Your task to perform on an android device: open a bookmark in the chrome app Image 0: 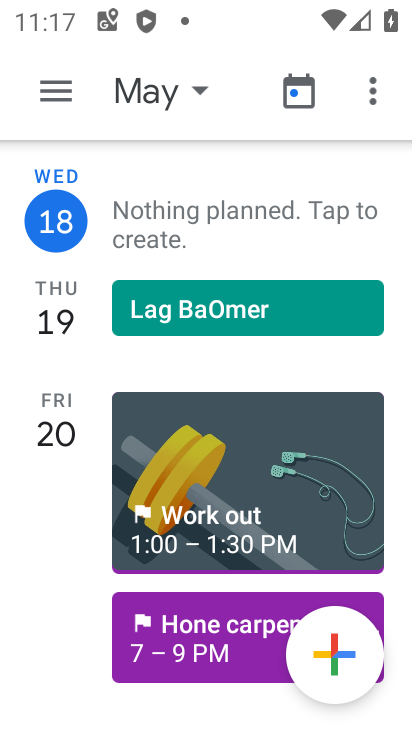
Step 0: press home button
Your task to perform on an android device: open a bookmark in the chrome app Image 1: 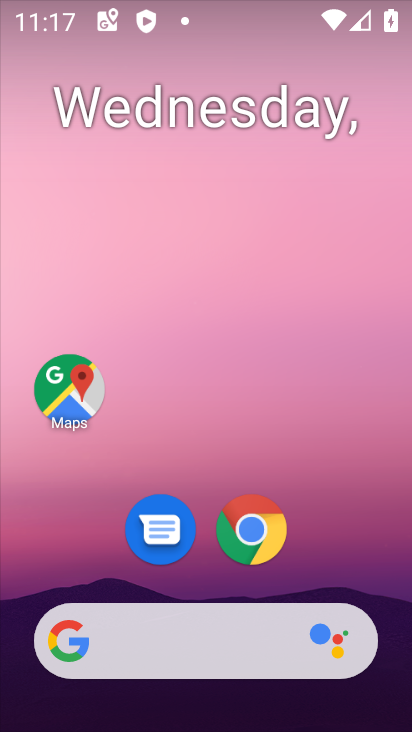
Step 1: drag from (165, 584) to (313, 37)
Your task to perform on an android device: open a bookmark in the chrome app Image 2: 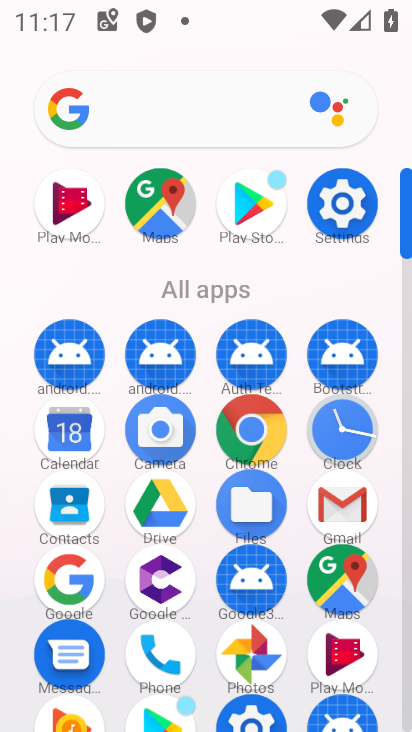
Step 2: click (247, 411)
Your task to perform on an android device: open a bookmark in the chrome app Image 3: 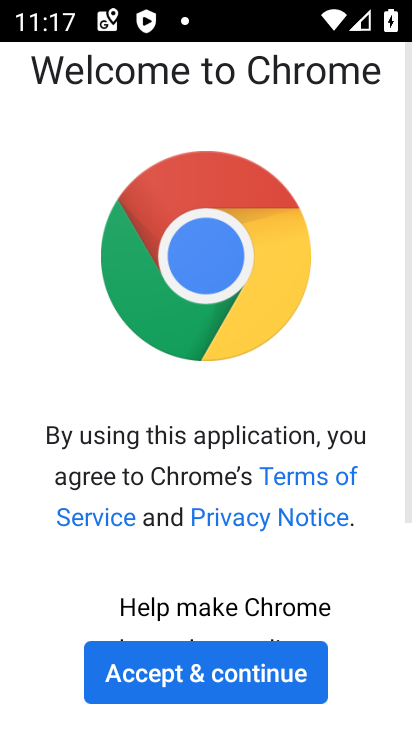
Step 3: click (259, 633)
Your task to perform on an android device: open a bookmark in the chrome app Image 4: 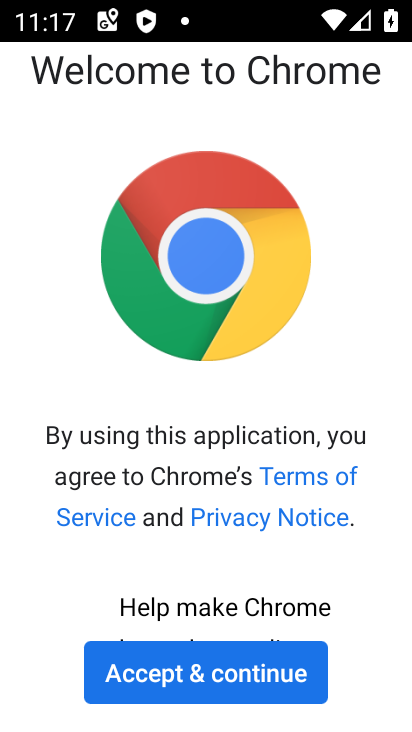
Step 4: click (260, 658)
Your task to perform on an android device: open a bookmark in the chrome app Image 5: 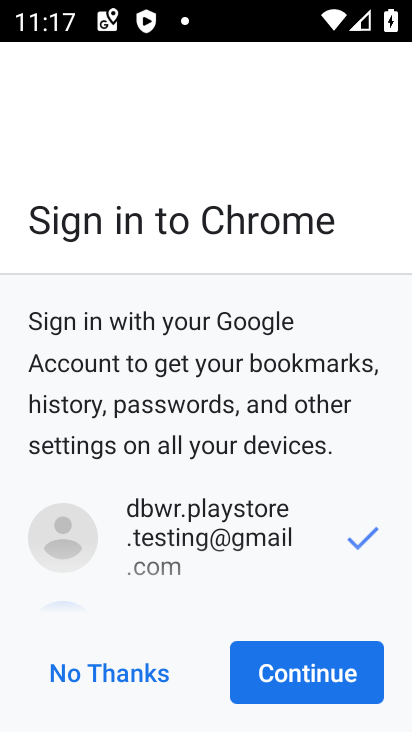
Step 5: click (286, 662)
Your task to perform on an android device: open a bookmark in the chrome app Image 6: 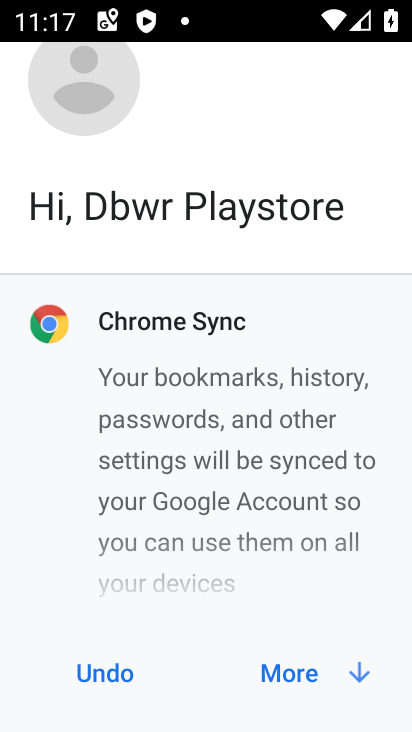
Step 6: click (279, 659)
Your task to perform on an android device: open a bookmark in the chrome app Image 7: 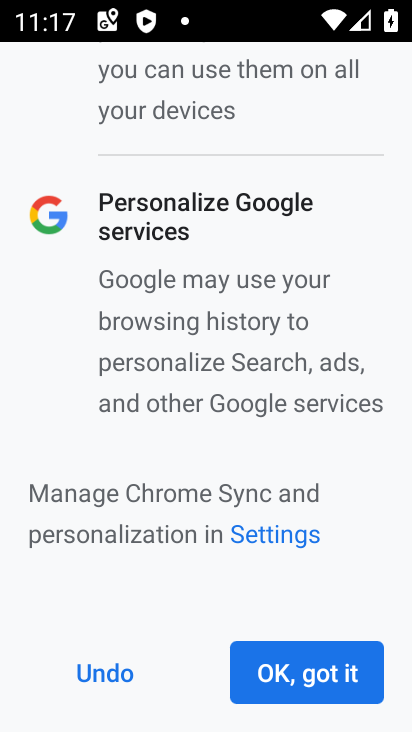
Step 7: click (275, 653)
Your task to perform on an android device: open a bookmark in the chrome app Image 8: 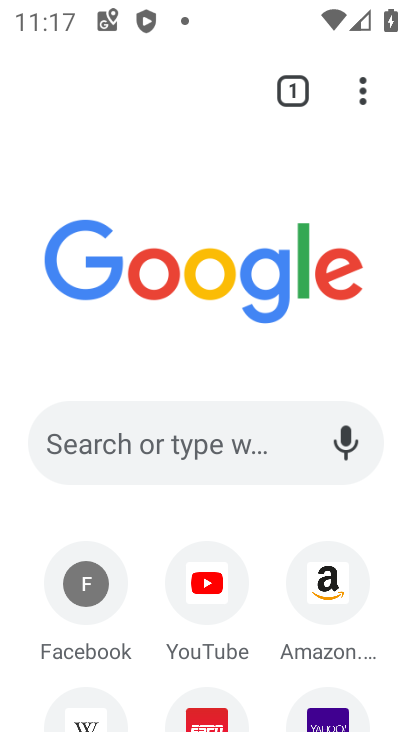
Step 8: click (352, 95)
Your task to perform on an android device: open a bookmark in the chrome app Image 9: 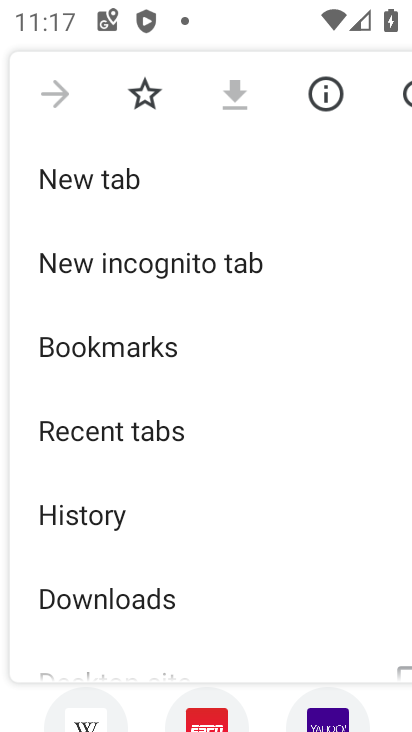
Step 9: drag from (252, 528) to (234, 212)
Your task to perform on an android device: open a bookmark in the chrome app Image 10: 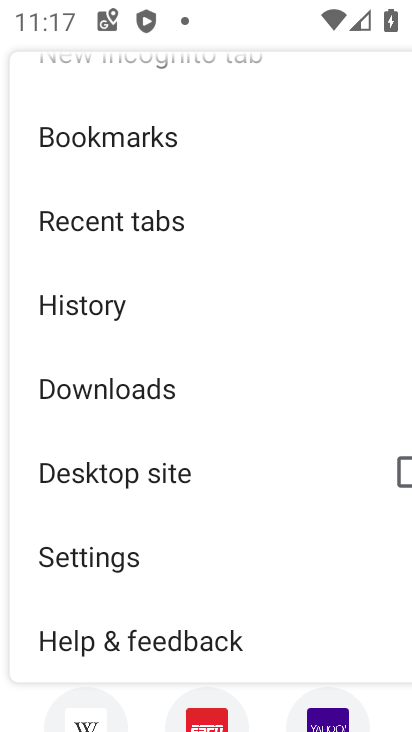
Step 10: click (97, 142)
Your task to perform on an android device: open a bookmark in the chrome app Image 11: 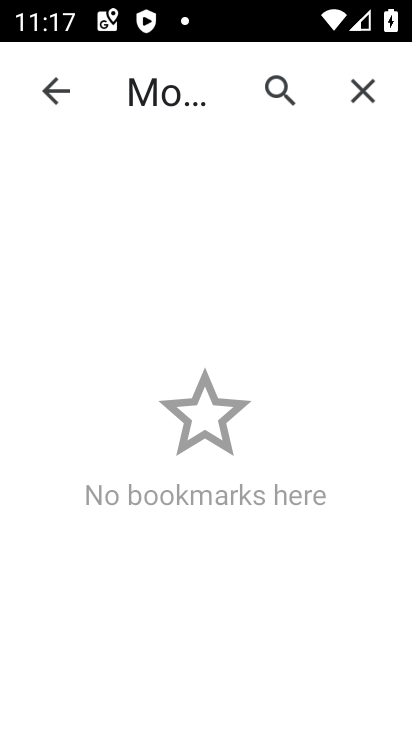
Step 11: task complete